Your task to perform on an android device: turn on bluetooth scan Image 0: 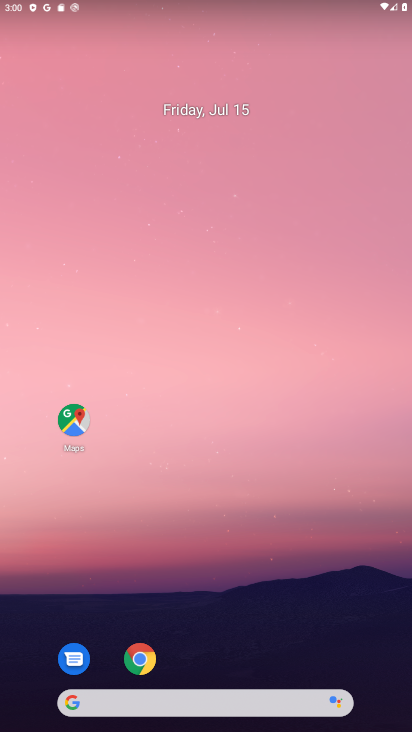
Step 0: drag from (254, 588) to (178, 9)
Your task to perform on an android device: turn on bluetooth scan Image 1: 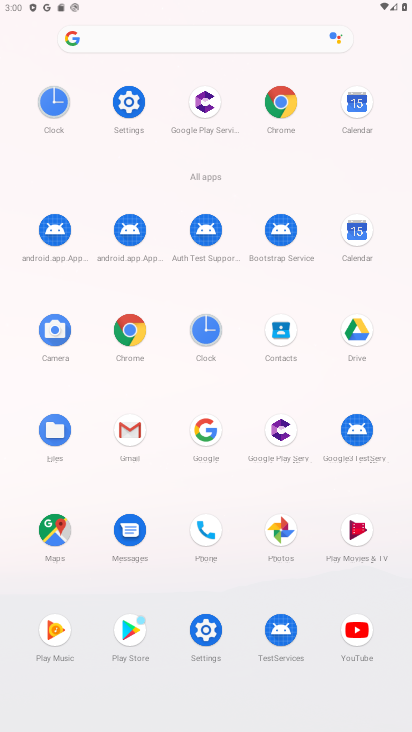
Step 1: click (126, 101)
Your task to perform on an android device: turn on bluetooth scan Image 2: 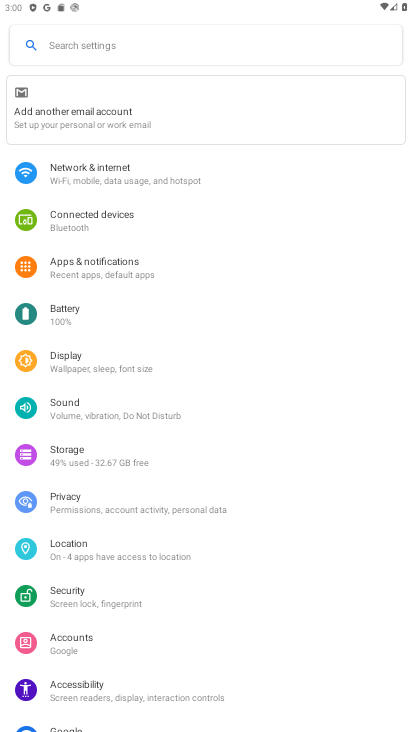
Step 2: click (60, 541)
Your task to perform on an android device: turn on bluetooth scan Image 3: 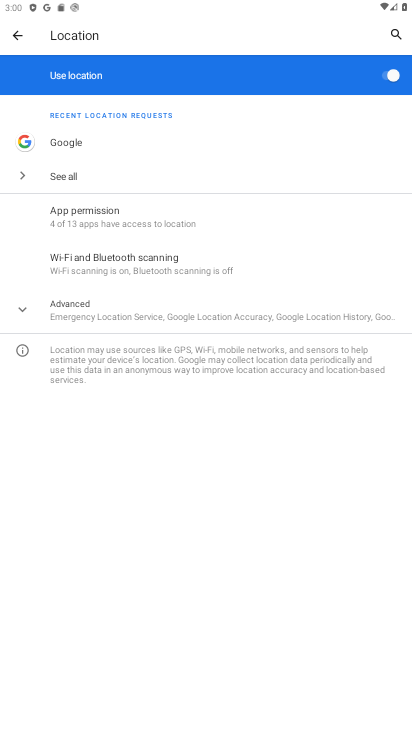
Step 3: click (134, 263)
Your task to perform on an android device: turn on bluetooth scan Image 4: 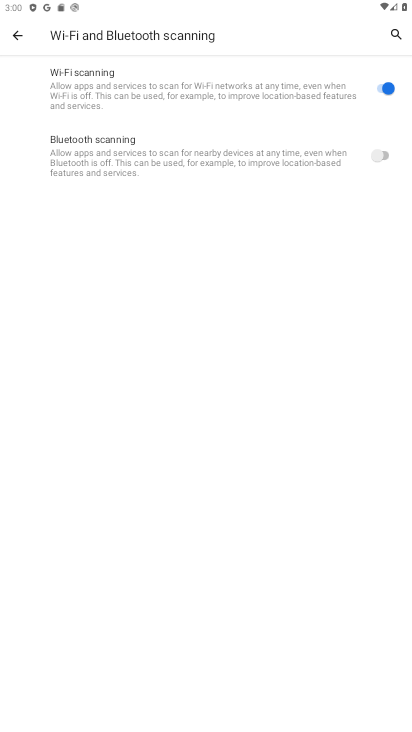
Step 4: click (374, 157)
Your task to perform on an android device: turn on bluetooth scan Image 5: 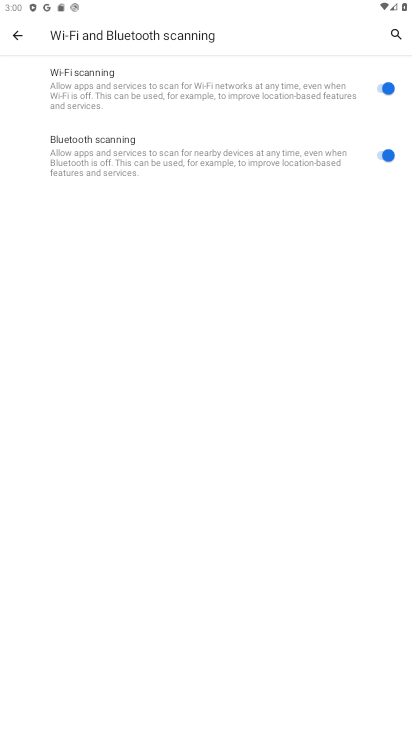
Step 5: task complete